Your task to perform on an android device: toggle sleep mode Image 0: 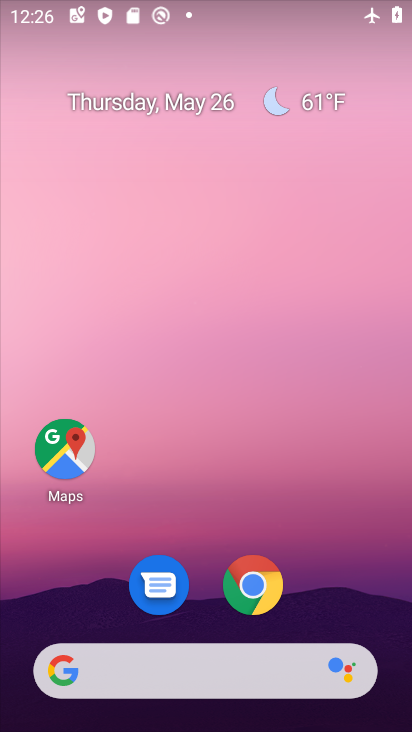
Step 0: drag from (257, 494) to (262, 28)
Your task to perform on an android device: toggle sleep mode Image 1: 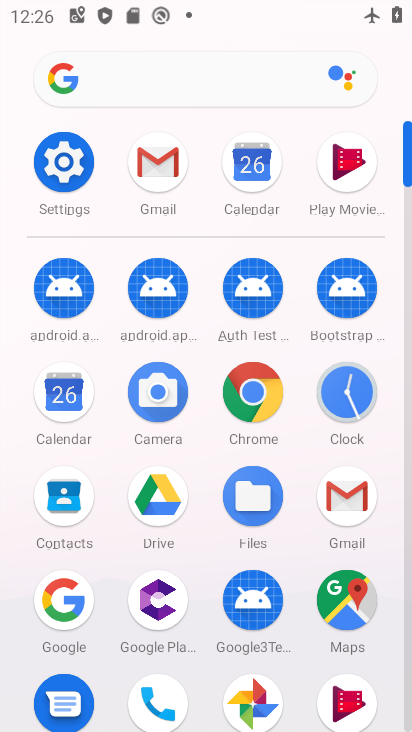
Step 1: click (74, 158)
Your task to perform on an android device: toggle sleep mode Image 2: 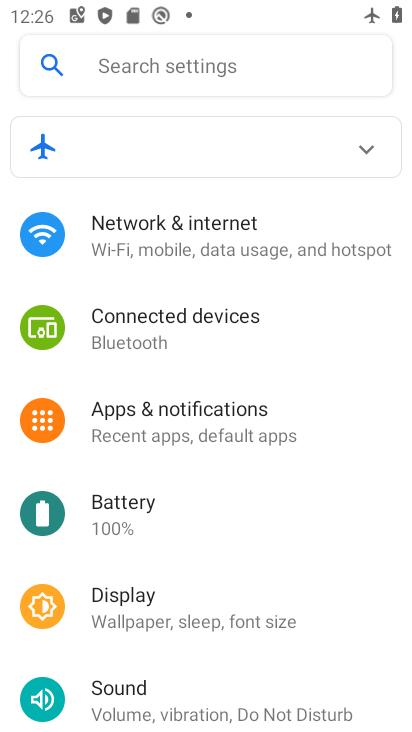
Step 2: click (216, 603)
Your task to perform on an android device: toggle sleep mode Image 3: 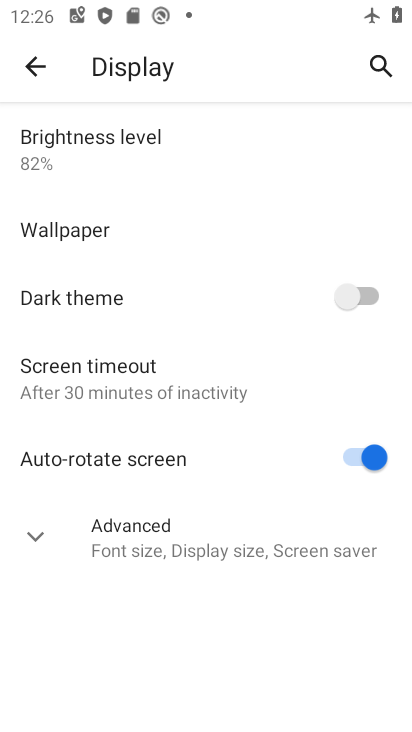
Step 3: click (40, 535)
Your task to perform on an android device: toggle sleep mode Image 4: 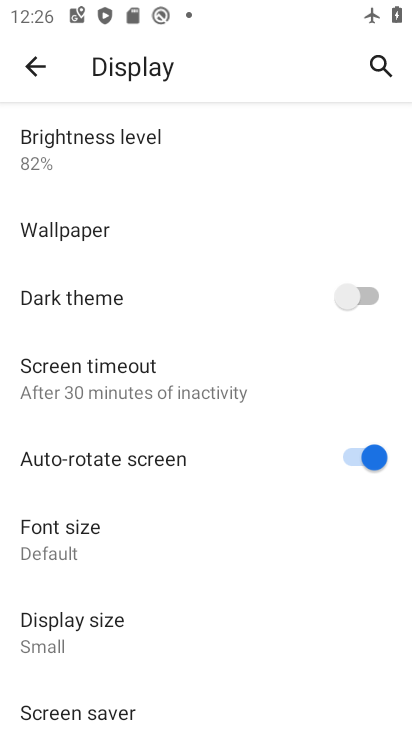
Step 4: task complete